Your task to perform on an android device: toggle priority inbox in the gmail app Image 0: 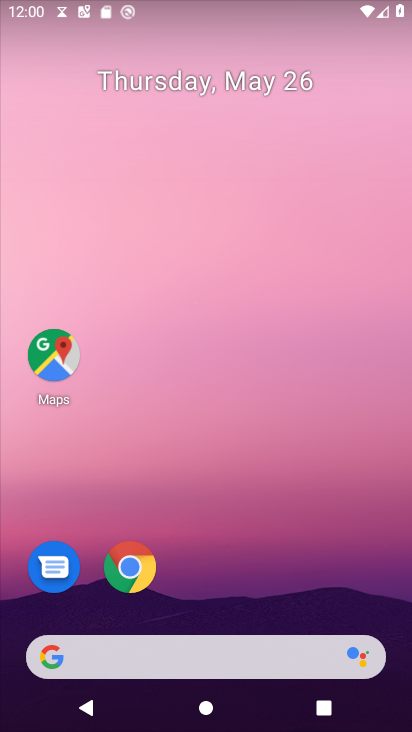
Step 0: drag from (228, 567) to (125, 94)
Your task to perform on an android device: toggle priority inbox in the gmail app Image 1: 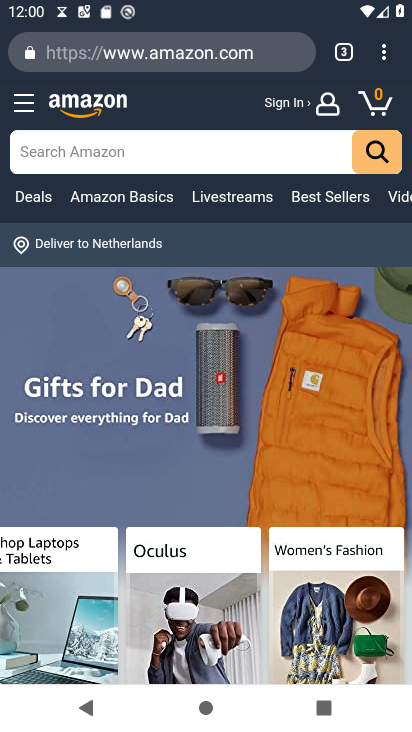
Step 1: press home button
Your task to perform on an android device: toggle priority inbox in the gmail app Image 2: 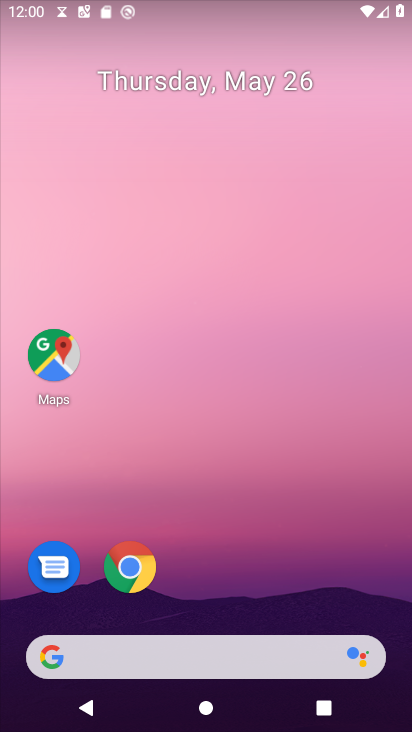
Step 2: drag from (228, 503) to (163, 140)
Your task to perform on an android device: toggle priority inbox in the gmail app Image 3: 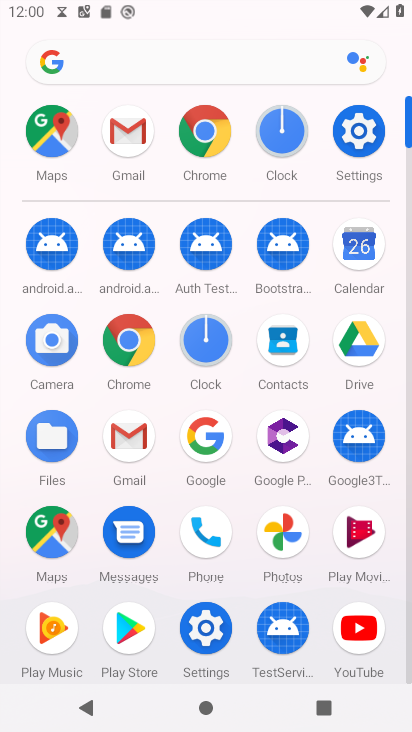
Step 3: click (123, 134)
Your task to perform on an android device: toggle priority inbox in the gmail app Image 4: 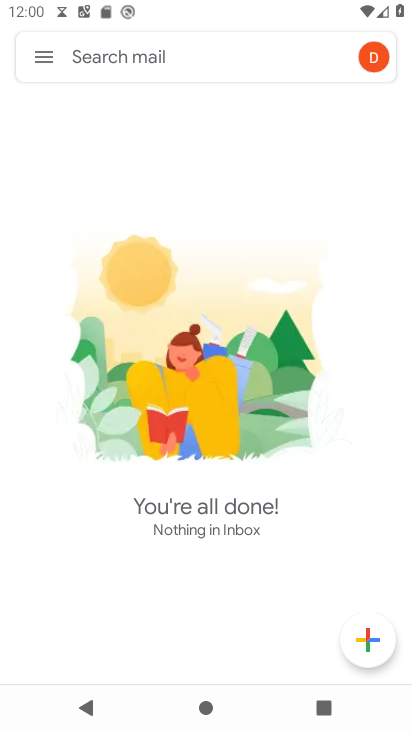
Step 4: click (45, 57)
Your task to perform on an android device: toggle priority inbox in the gmail app Image 5: 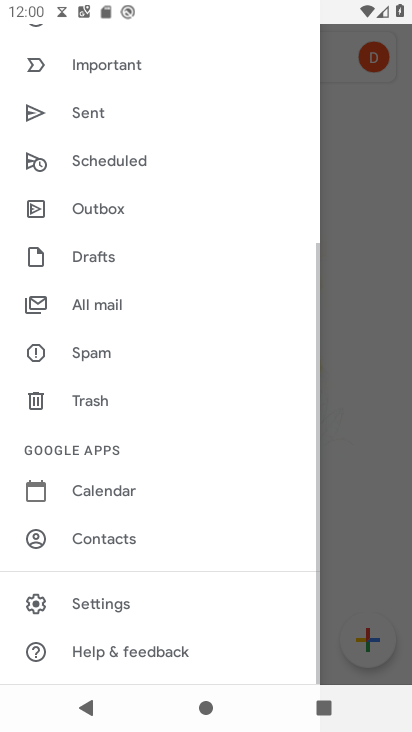
Step 5: drag from (117, 131) to (116, 639)
Your task to perform on an android device: toggle priority inbox in the gmail app Image 6: 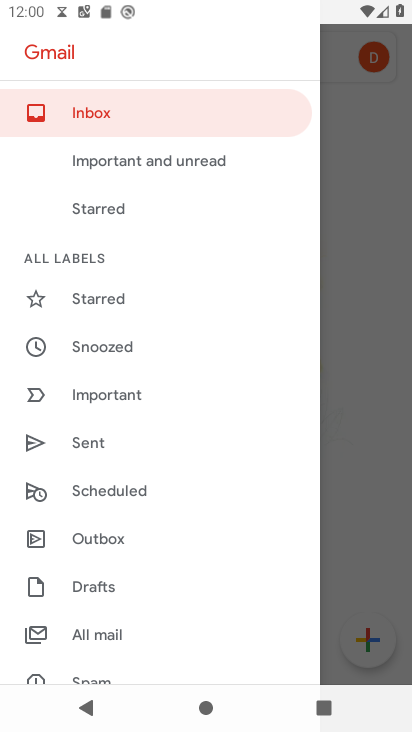
Step 6: drag from (82, 478) to (66, 183)
Your task to perform on an android device: toggle priority inbox in the gmail app Image 7: 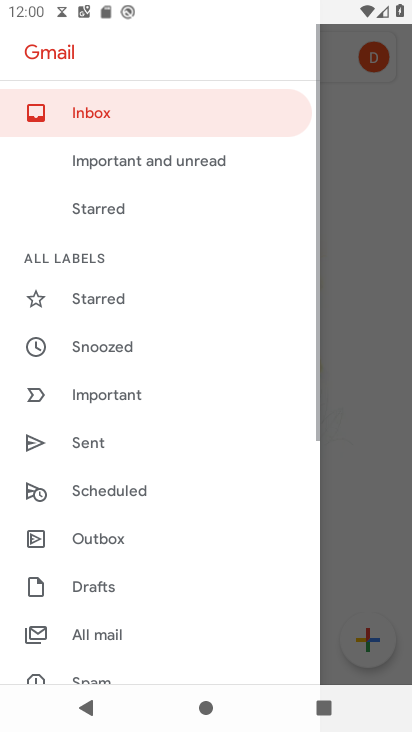
Step 7: drag from (141, 589) to (181, 75)
Your task to perform on an android device: toggle priority inbox in the gmail app Image 8: 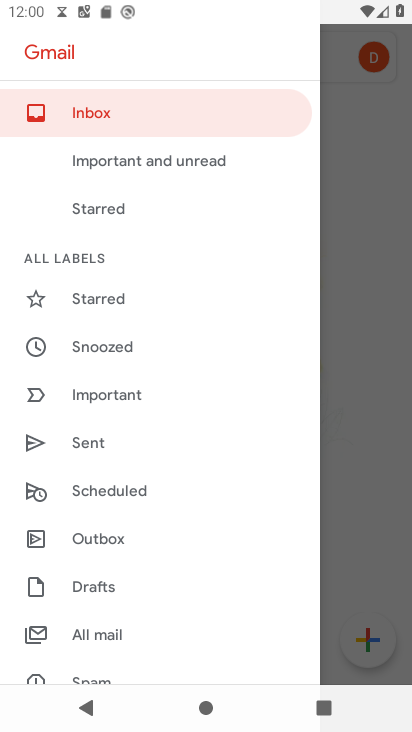
Step 8: drag from (185, 588) to (282, 86)
Your task to perform on an android device: toggle priority inbox in the gmail app Image 9: 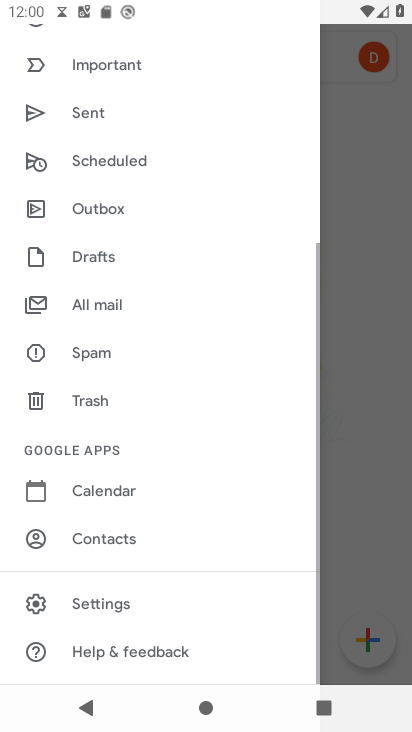
Step 9: click (119, 598)
Your task to perform on an android device: toggle priority inbox in the gmail app Image 10: 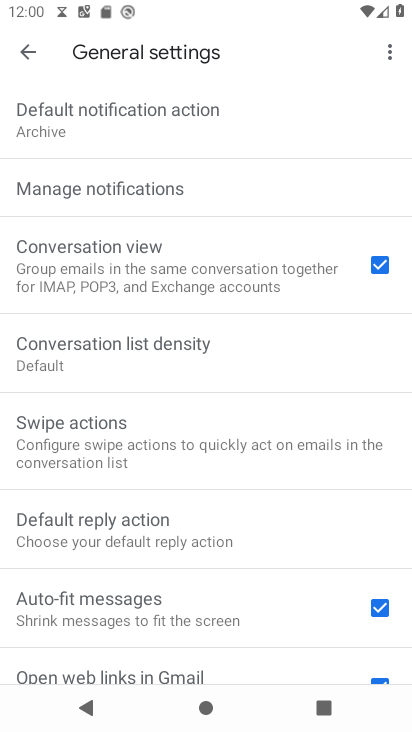
Step 10: task complete